Your task to perform on an android device: star an email in the gmail app Image 0: 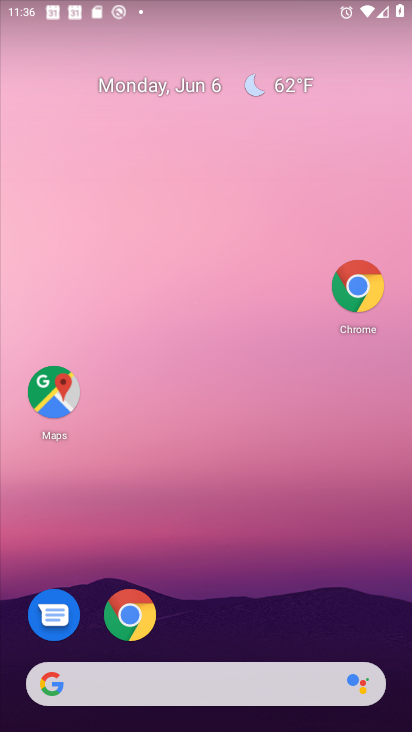
Step 0: click (208, 62)
Your task to perform on an android device: star an email in the gmail app Image 1: 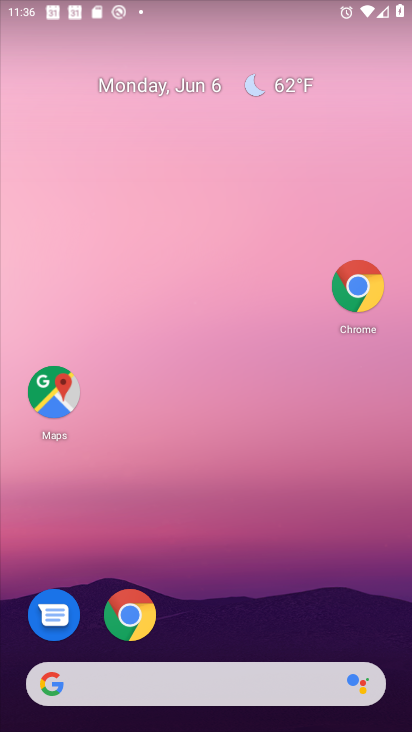
Step 1: drag from (198, 493) to (93, 3)
Your task to perform on an android device: star an email in the gmail app Image 2: 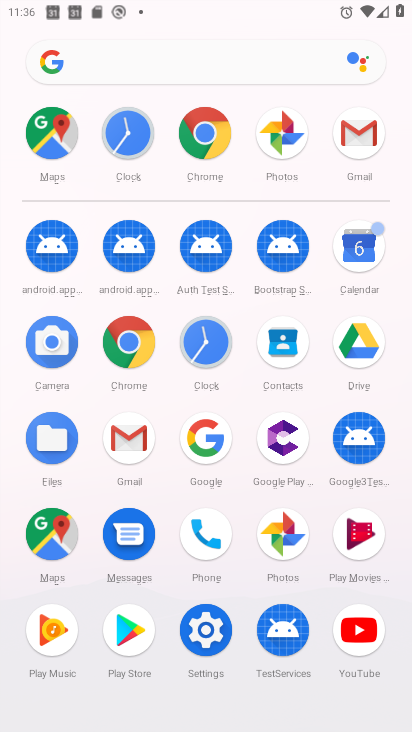
Step 2: click (133, 449)
Your task to perform on an android device: star an email in the gmail app Image 3: 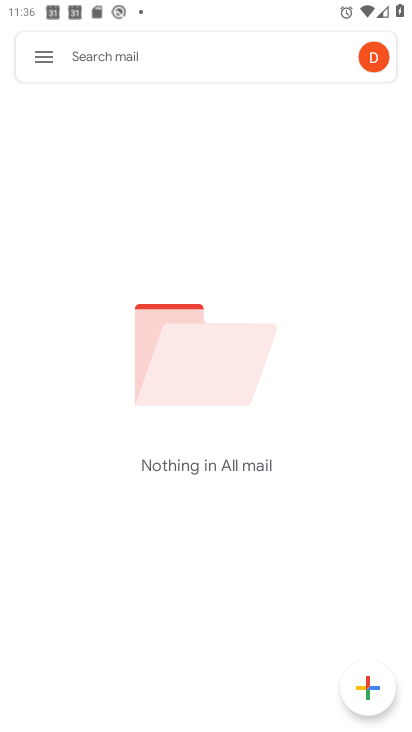
Step 3: click (41, 57)
Your task to perform on an android device: star an email in the gmail app Image 4: 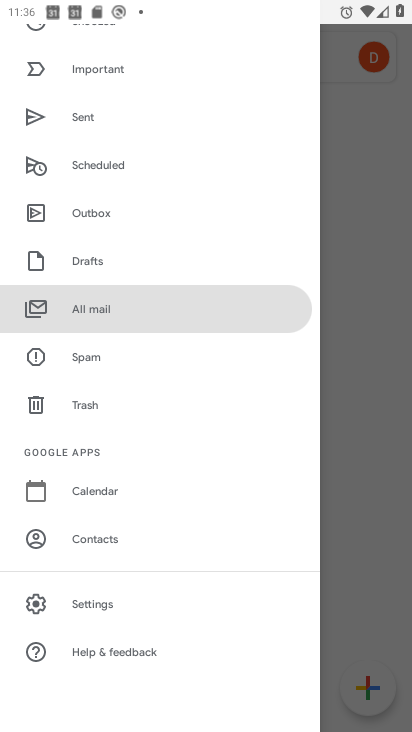
Step 4: click (93, 309)
Your task to perform on an android device: star an email in the gmail app Image 5: 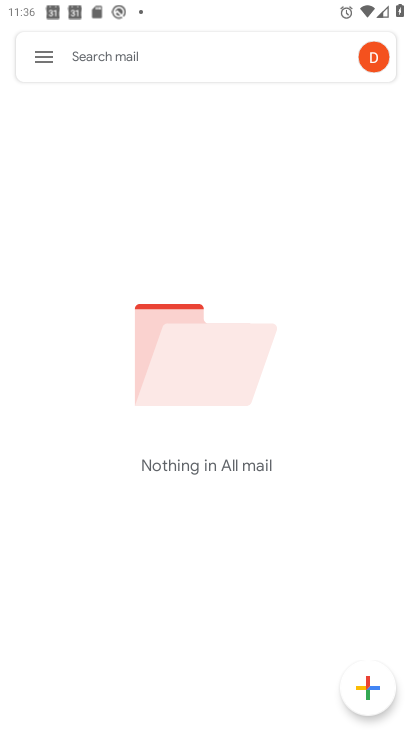
Step 5: task complete